Your task to perform on an android device: Go to CNN.com Image 0: 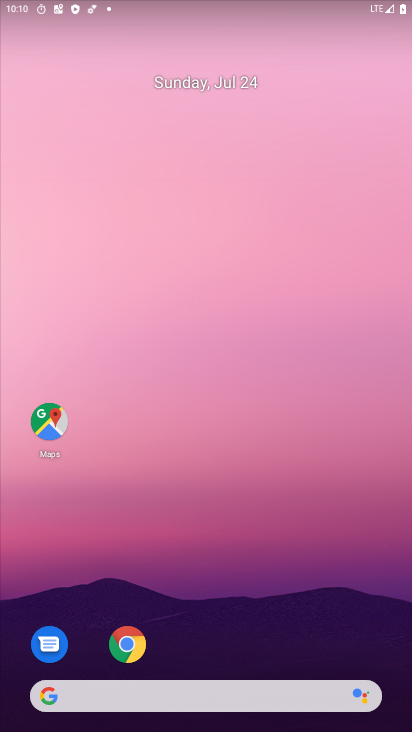
Step 0: drag from (230, 598) to (236, 319)
Your task to perform on an android device: Go to CNN.com Image 1: 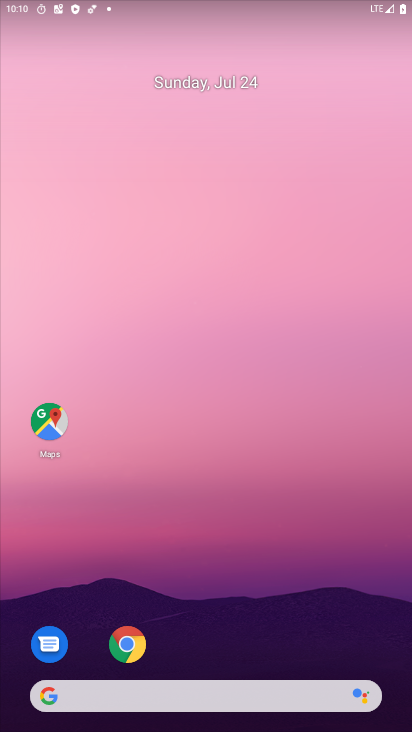
Step 1: drag from (187, 621) to (182, 305)
Your task to perform on an android device: Go to CNN.com Image 2: 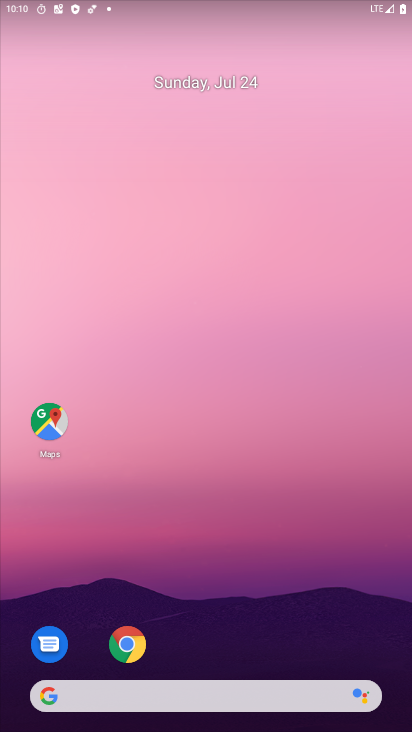
Step 2: drag from (221, 676) to (271, 271)
Your task to perform on an android device: Go to CNN.com Image 3: 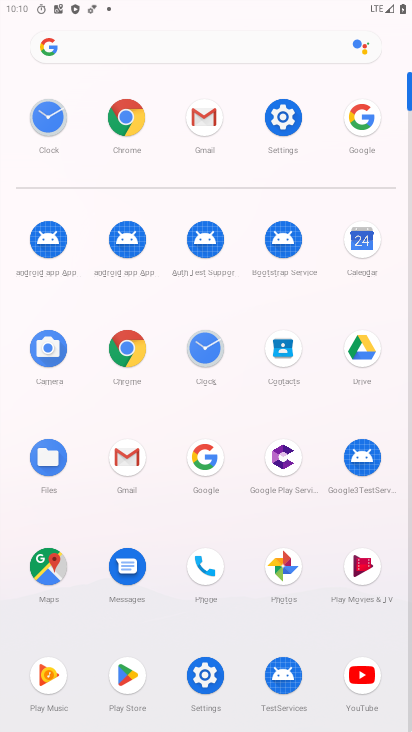
Step 3: click (199, 451)
Your task to perform on an android device: Go to CNN.com Image 4: 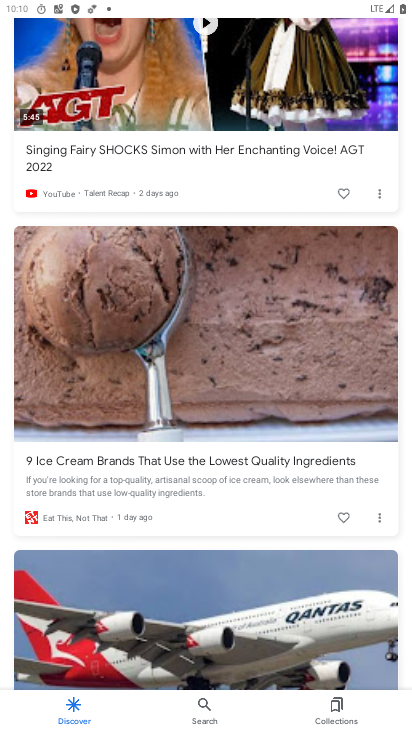
Step 4: drag from (161, 95) to (161, 597)
Your task to perform on an android device: Go to CNN.com Image 5: 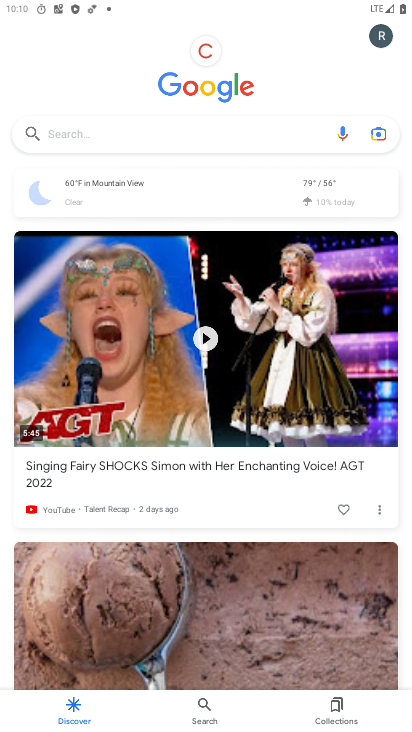
Step 5: click (110, 136)
Your task to perform on an android device: Go to CNN.com Image 6: 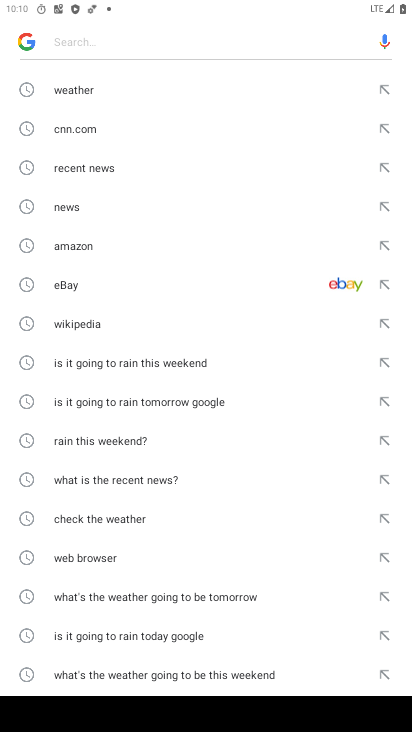
Step 6: click (89, 121)
Your task to perform on an android device: Go to CNN.com Image 7: 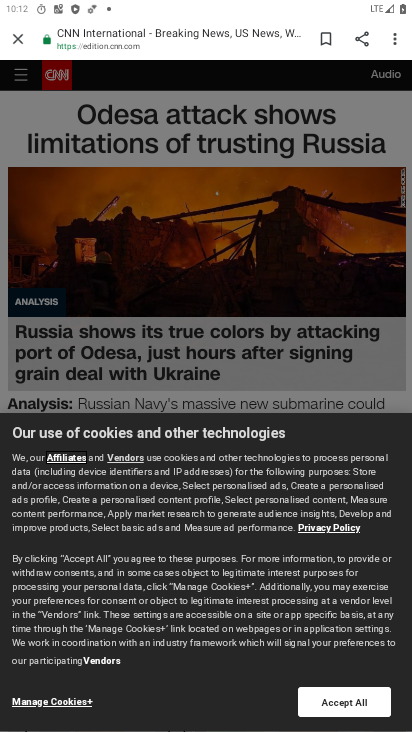
Step 7: task complete